Your task to perform on an android device: What's on my calendar tomorrow? Image 0: 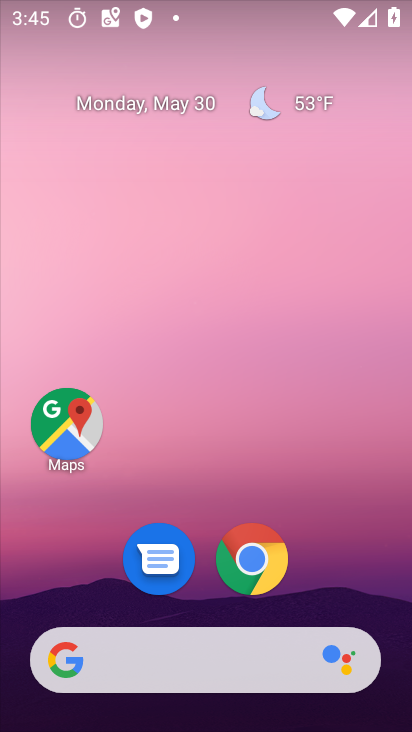
Step 0: drag from (181, 691) to (185, 14)
Your task to perform on an android device: What's on my calendar tomorrow? Image 1: 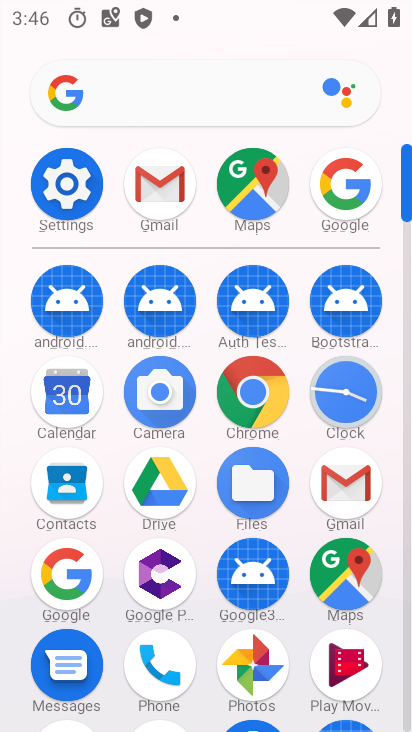
Step 1: click (66, 405)
Your task to perform on an android device: What's on my calendar tomorrow? Image 2: 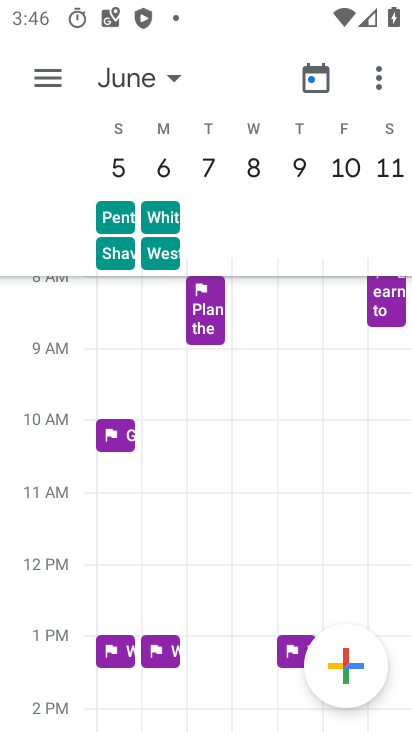
Step 2: click (177, 76)
Your task to perform on an android device: What's on my calendar tomorrow? Image 3: 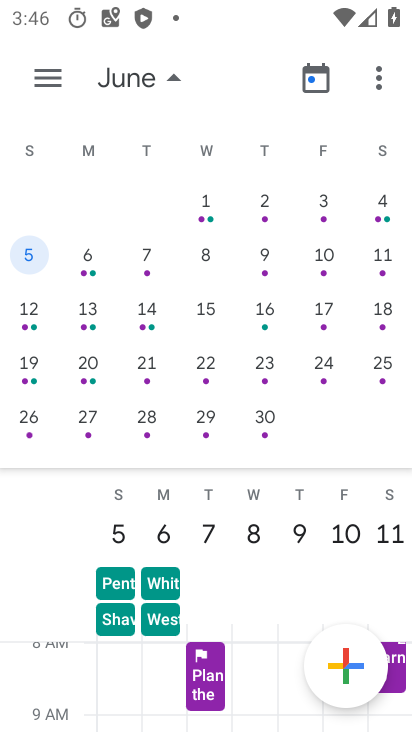
Step 3: drag from (36, 326) to (395, 316)
Your task to perform on an android device: What's on my calendar tomorrow? Image 4: 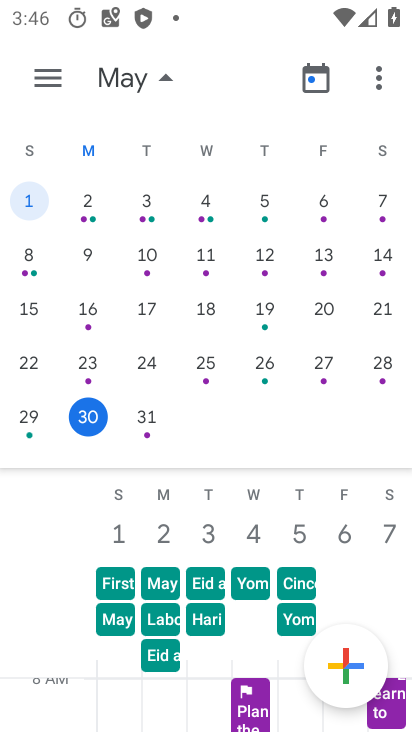
Step 4: click (146, 412)
Your task to perform on an android device: What's on my calendar tomorrow? Image 5: 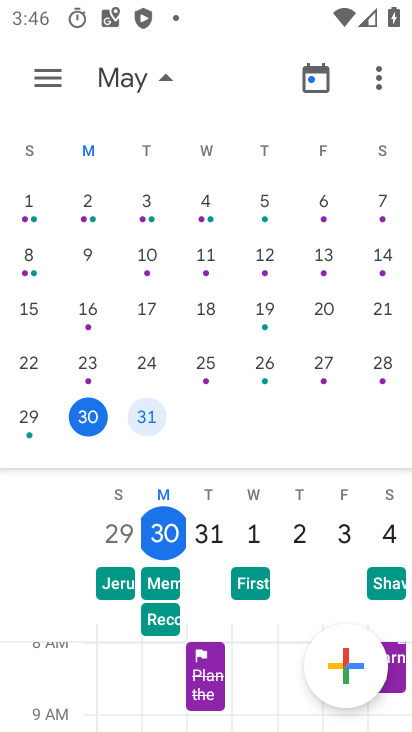
Step 5: click (170, 79)
Your task to perform on an android device: What's on my calendar tomorrow? Image 6: 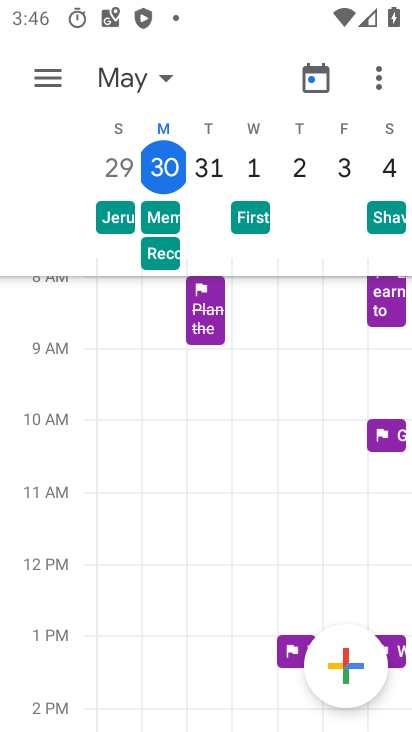
Step 6: click (168, 167)
Your task to perform on an android device: What's on my calendar tomorrow? Image 7: 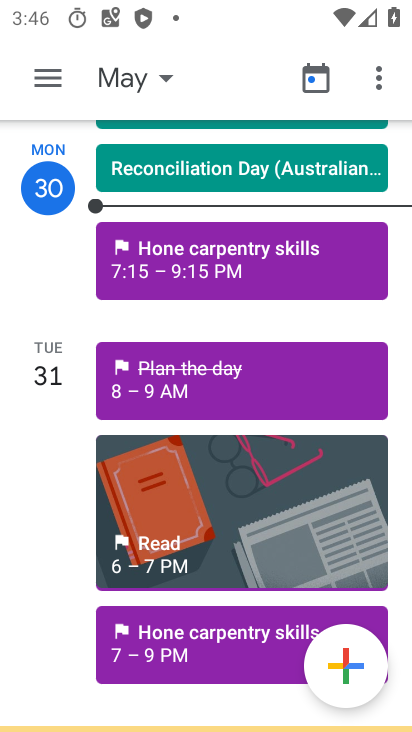
Step 7: task complete